Your task to perform on an android device: Do I have any events tomorrow? Image 0: 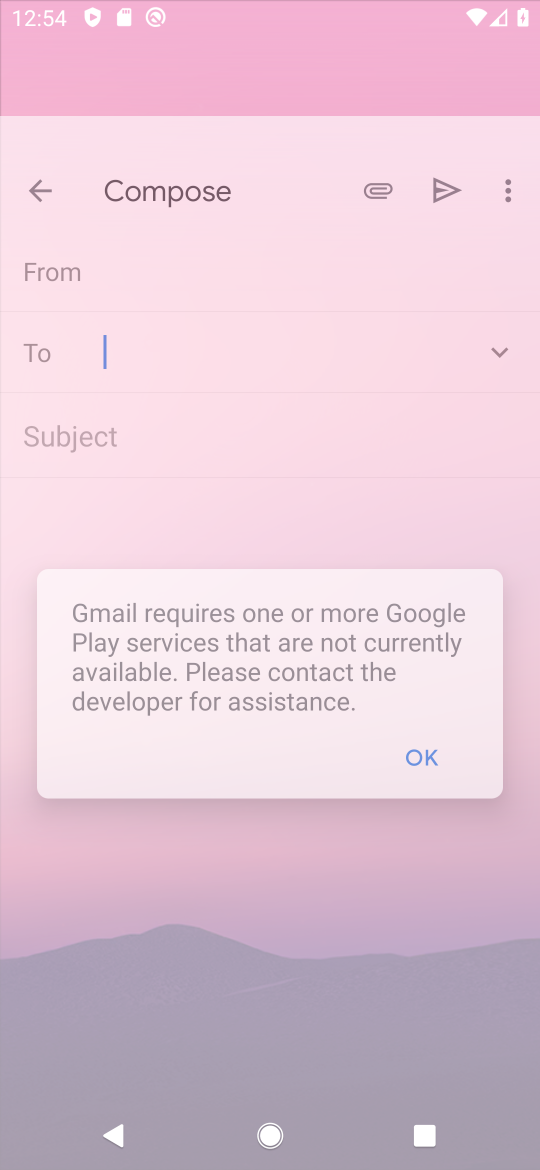
Step 0: drag from (295, 195) to (296, 419)
Your task to perform on an android device: Do I have any events tomorrow? Image 1: 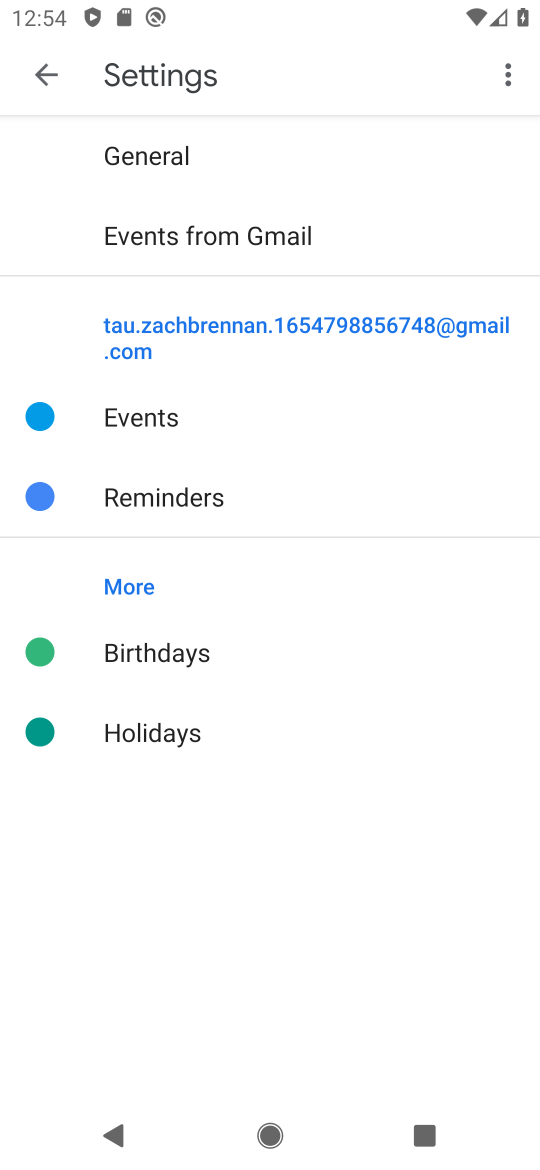
Step 1: press home button
Your task to perform on an android device: Do I have any events tomorrow? Image 2: 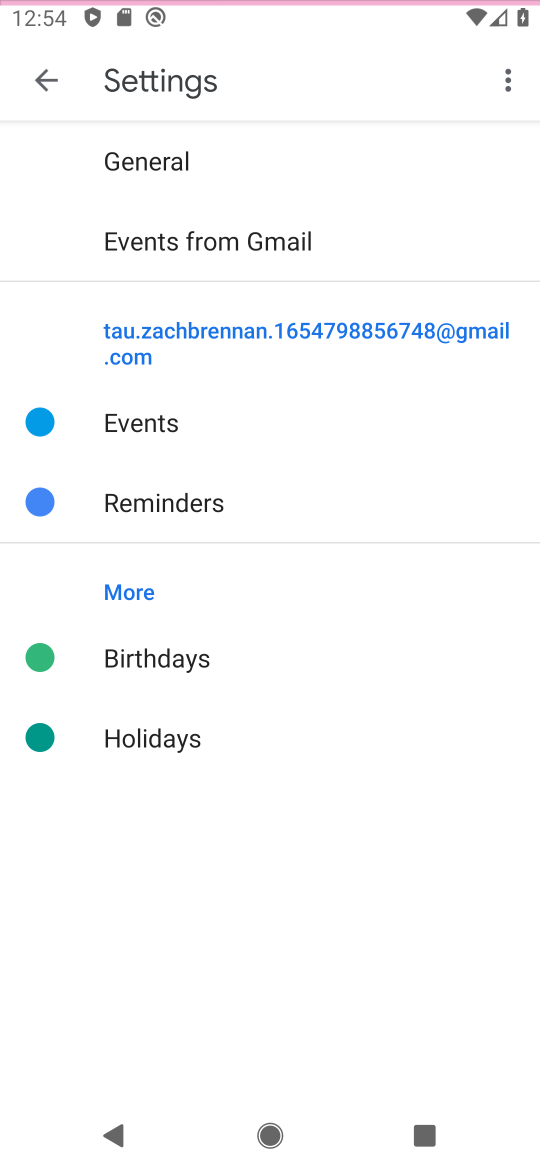
Step 2: drag from (318, 868) to (445, 25)
Your task to perform on an android device: Do I have any events tomorrow? Image 3: 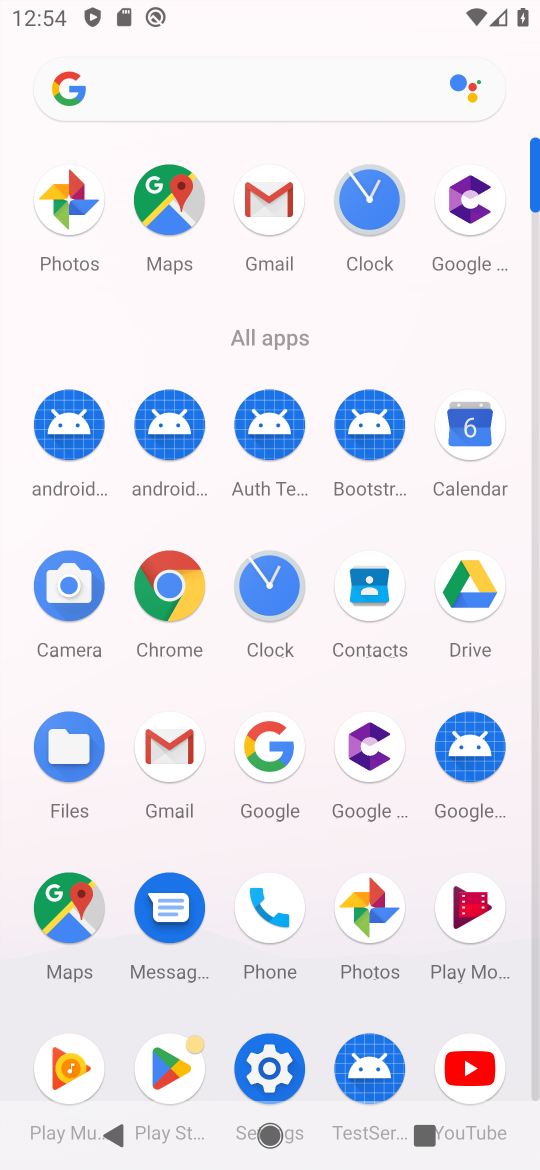
Step 3: click (476, 421)
Your task to perform on an android device: Do I have any events tomorrow? Image 4: 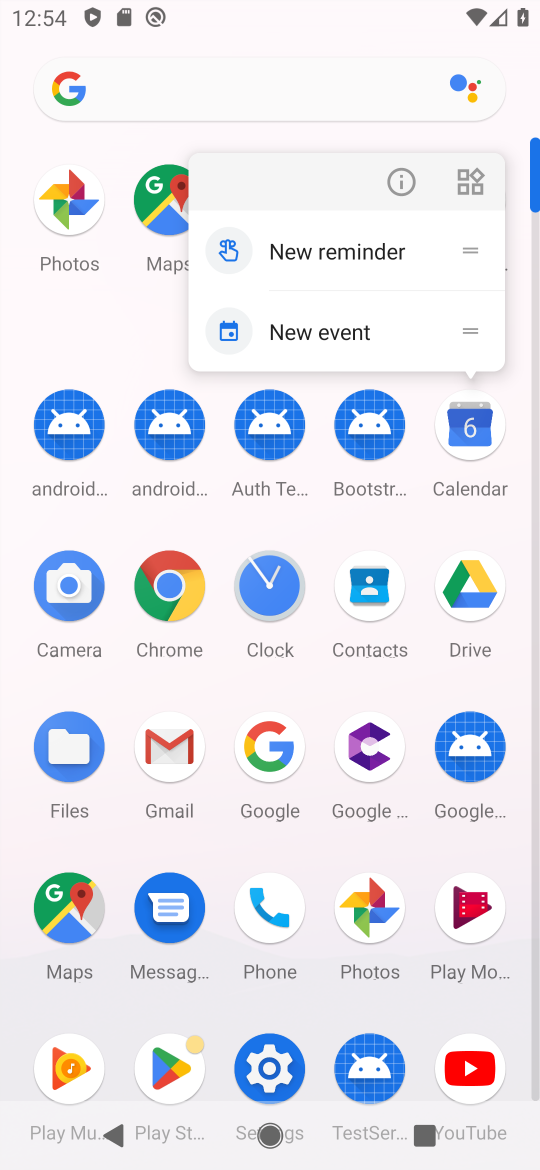
Step 4: click (409, 174)
Your task to perform on an android device: Do I have any events tomorrow? Image 5: 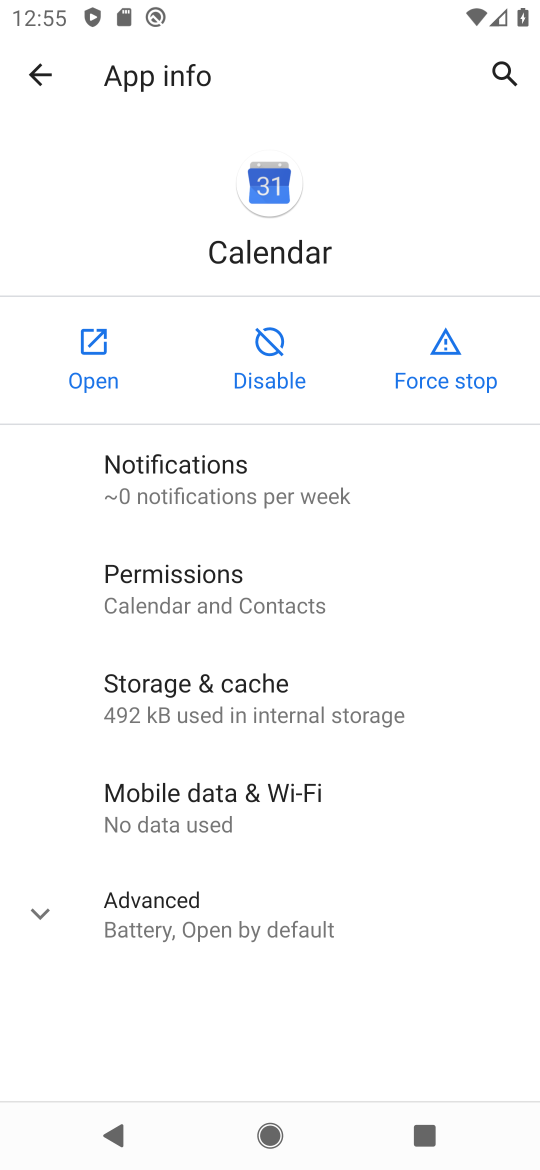
Step 5: click (100, 349)
Your task to perform on an android device: Do I have any events tomorrow? Image 6: 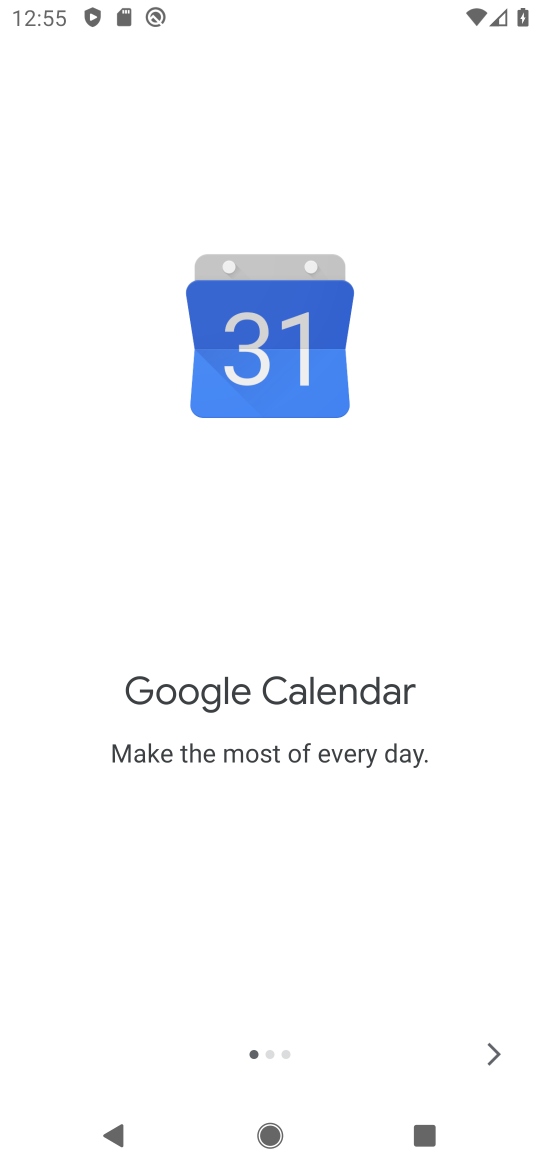
Step 6: click (498, 1037)
Your task to perform on an android device: Do I have any events tomorrow? Image 7: 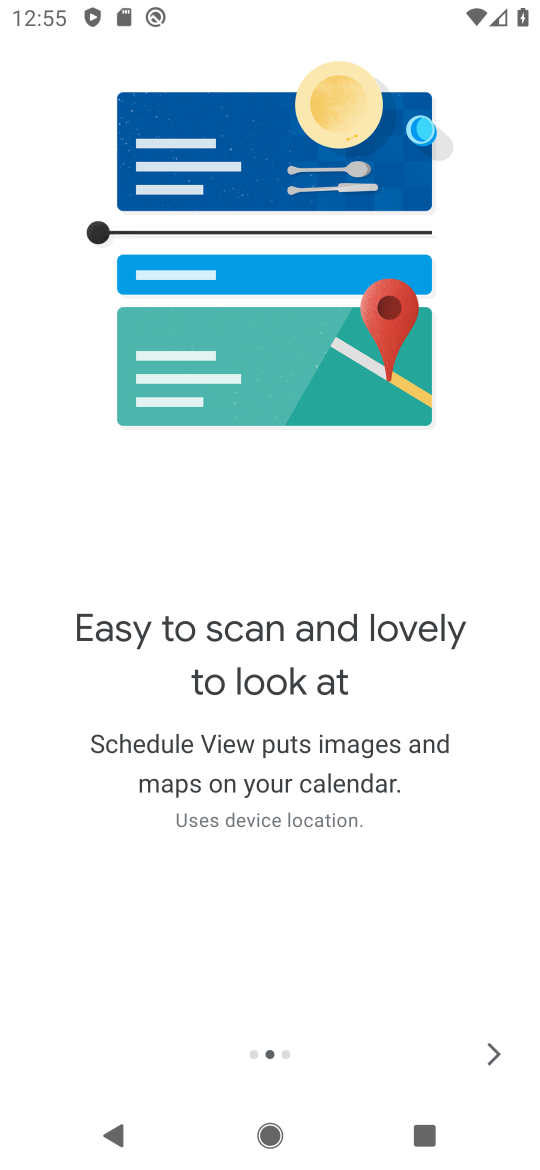
Step 7: click (502, 1043)
Your task to perform on an android device: Do I have any events tomorrow? Image 8: 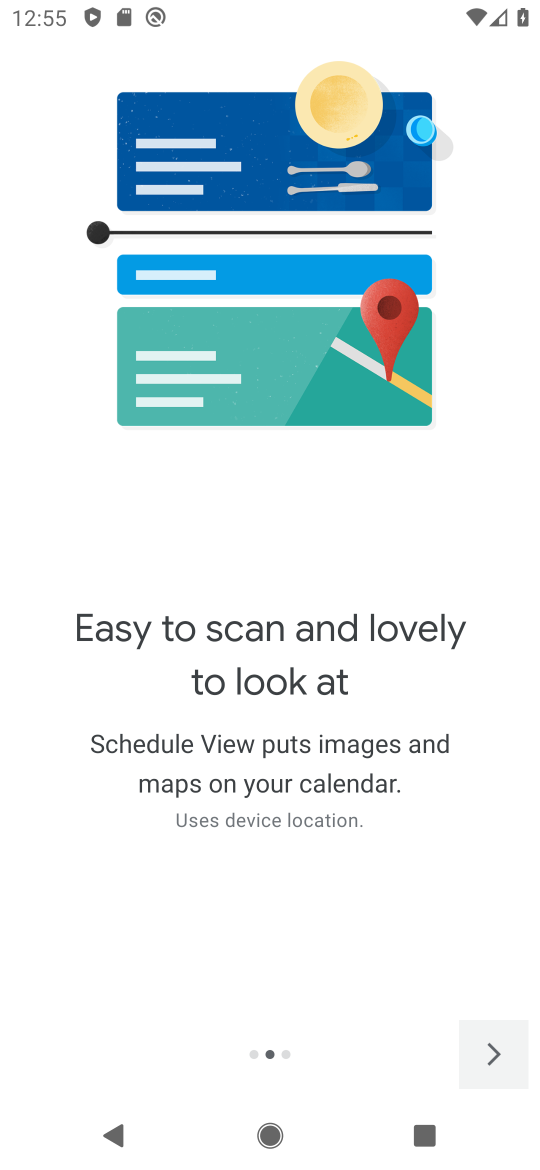
Step 8: click (496, 1043)
Your task to perform on an android device: Do I have any events tomorrow? Image 9: 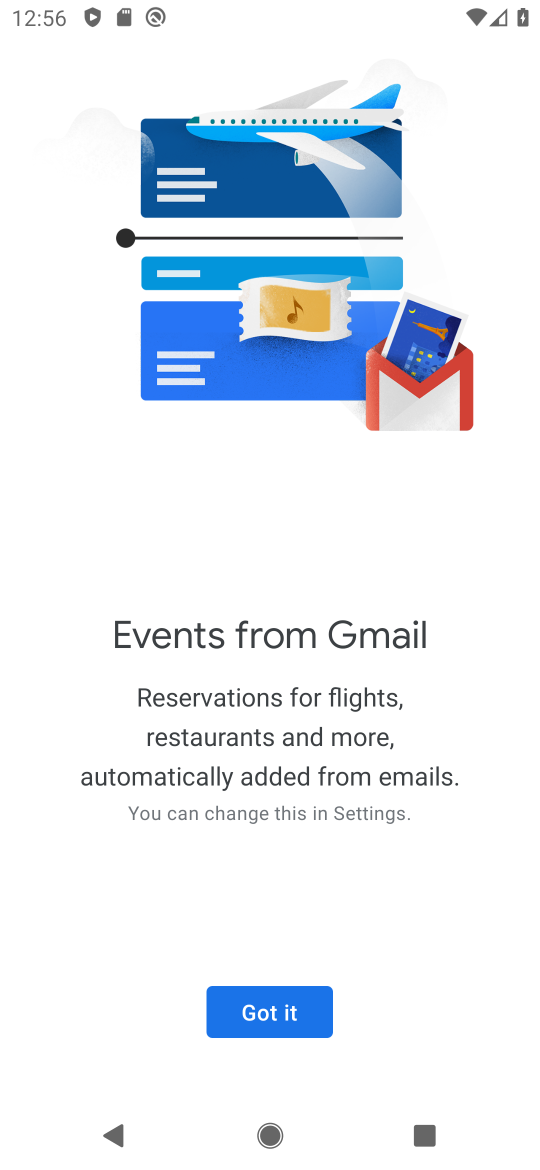
Step 9: click (270, 998)
Your task to perform on an android device: Do I have any events tomorrow? Image 10: 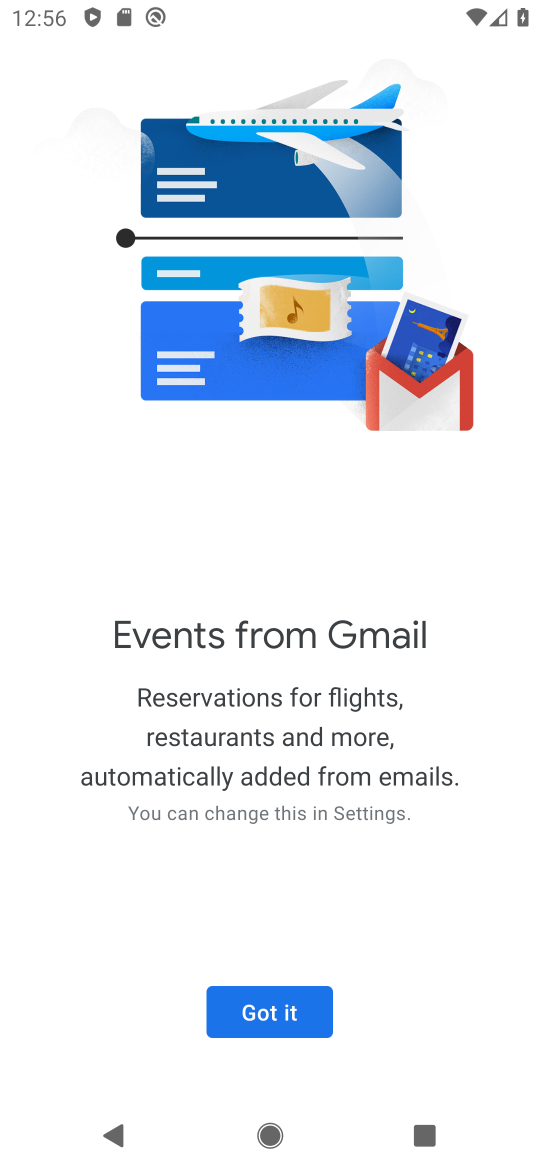
Step 10: click (290, 1027)
Your task to perform on an android device: Do I have any events tomorrow? Image 11: 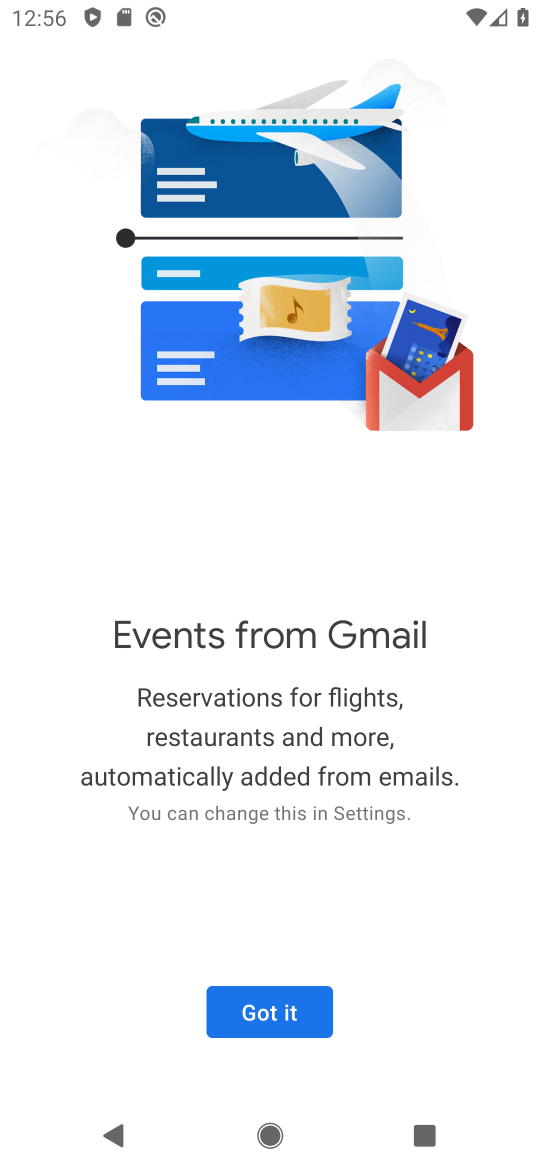
Step 11: click (279, 1014)
Your task to perform on an android device: Do I have any events tomorrow? Image 12: 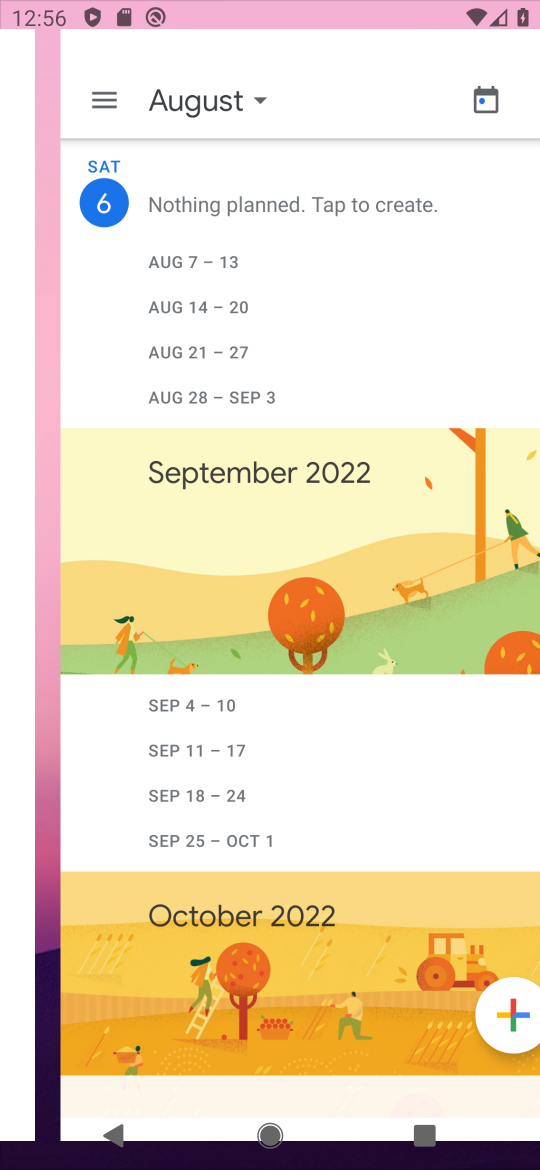
Step 12: click (281, 1009)
Your task to perform on an android device: Do I have any events tomorrow? Image 13: 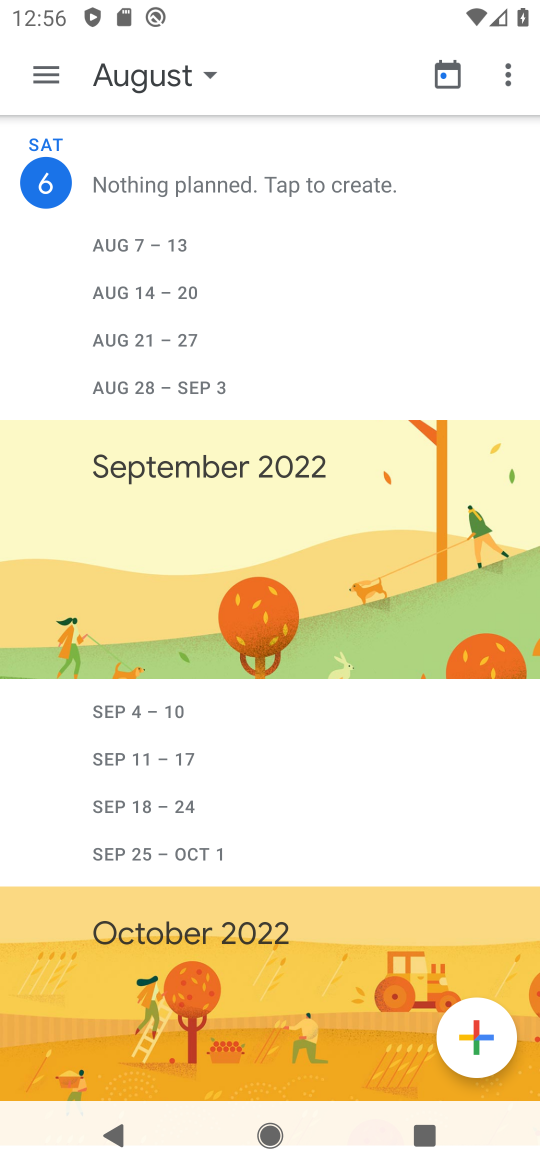
Step 13: drag from (286, 990) to (356, 406)
Your task to perform on an android device: Do I have any events tomorrow? Image 14: 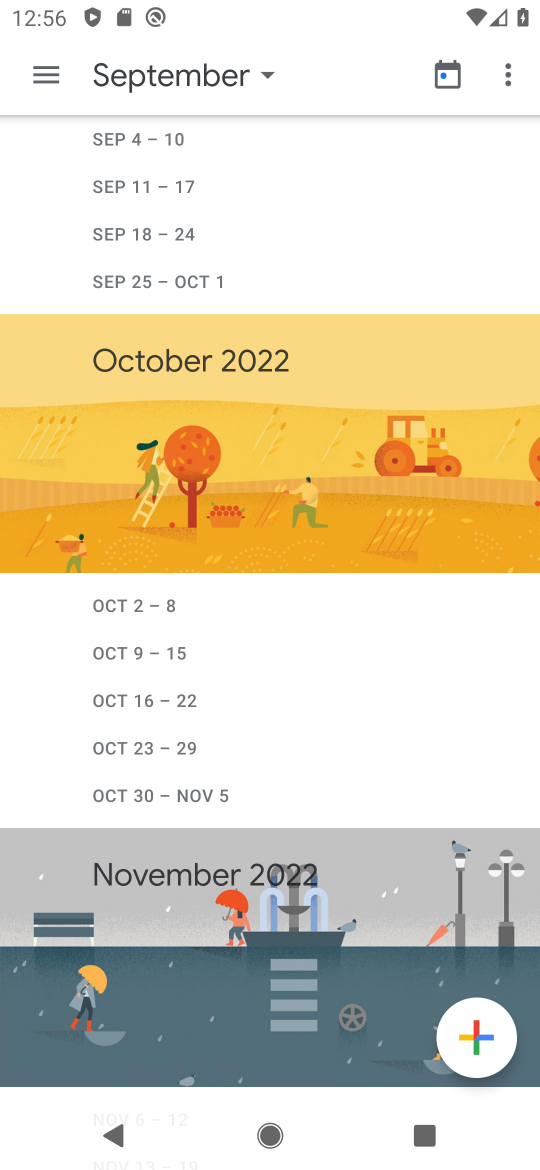
Step 14: click (290, 17)
Your task to perform on an android device: Do I have any events tomorrow? Image 15: 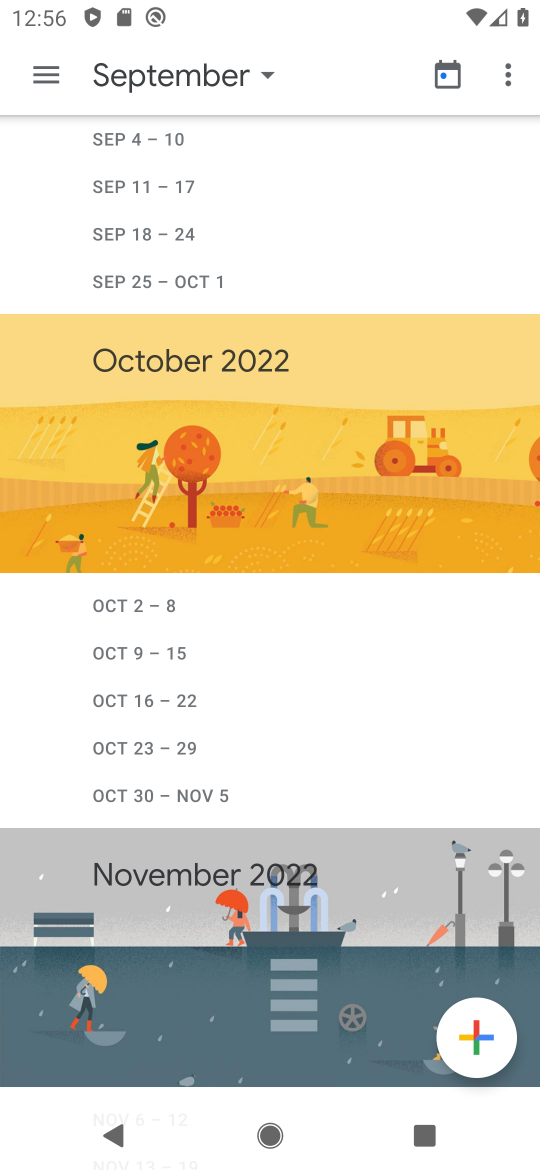
Step 15: click (458, 81)
Your task to perform on an android device: Do I have any events tomorrow? Image 16: 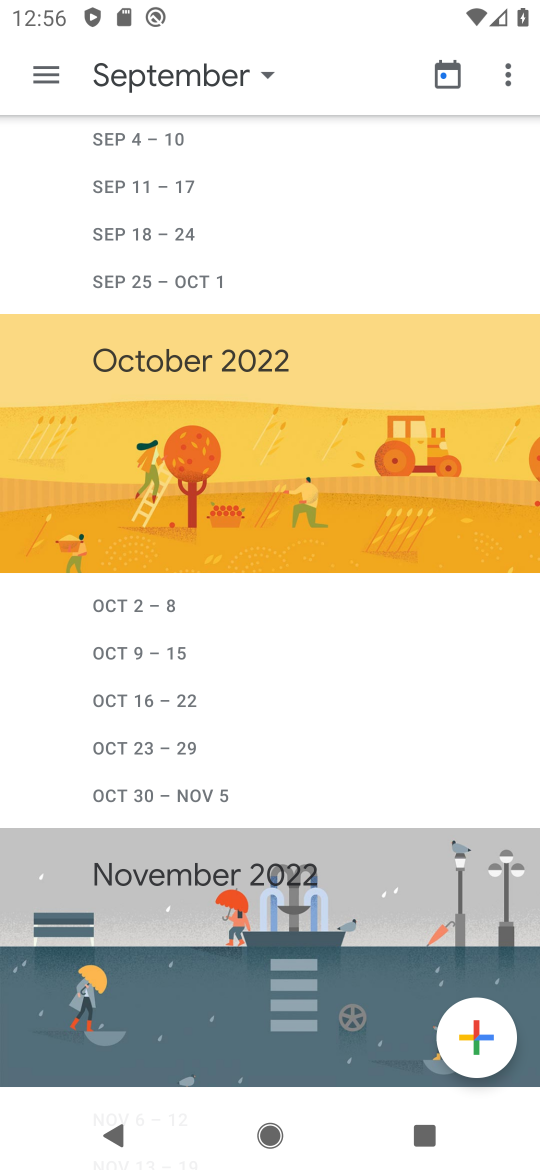
Step 16: click (182, 65)
Your task to perform on an android device: Do I have any events tomorrow? Image 17: 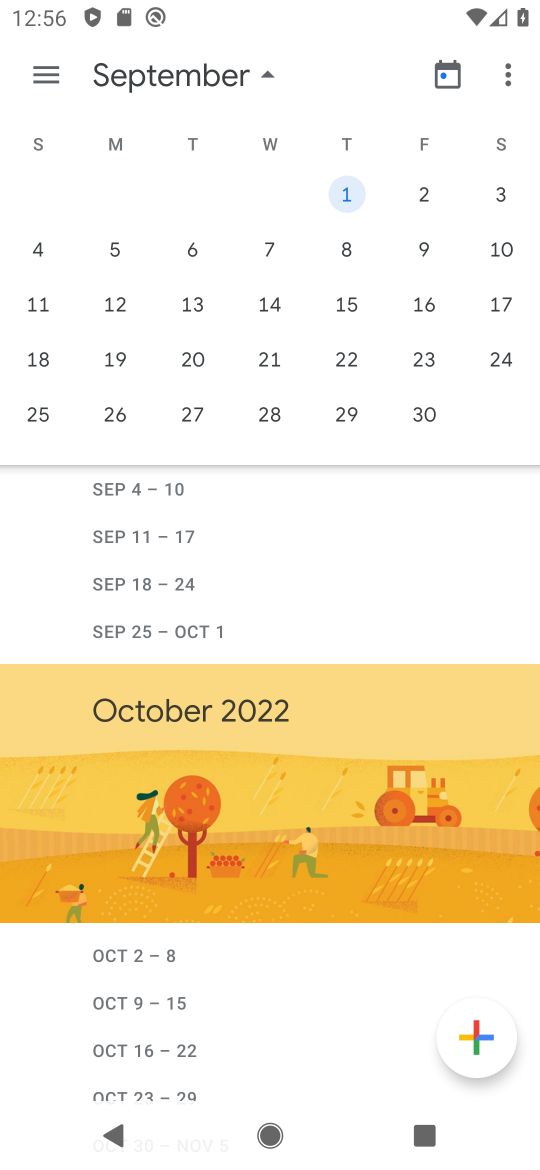
Step 17: click (451, 75)
Your task to perform on an android device: Do I have any events tomorrow? Image 18: 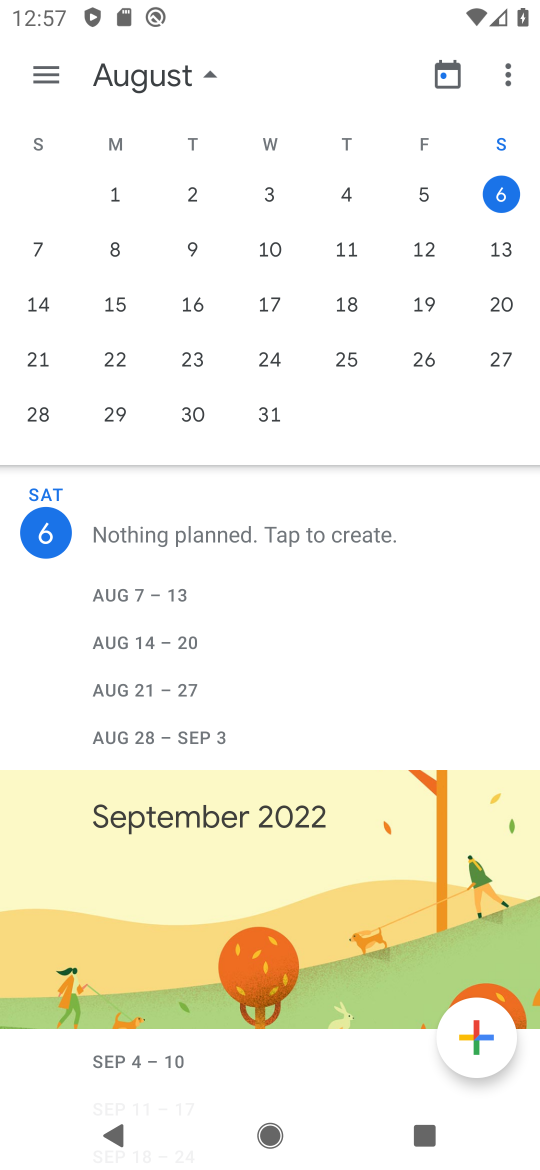
Step 18: click (43, 247)
Your task to perform on an android device: Do I have any events tomorrow? Image 19: 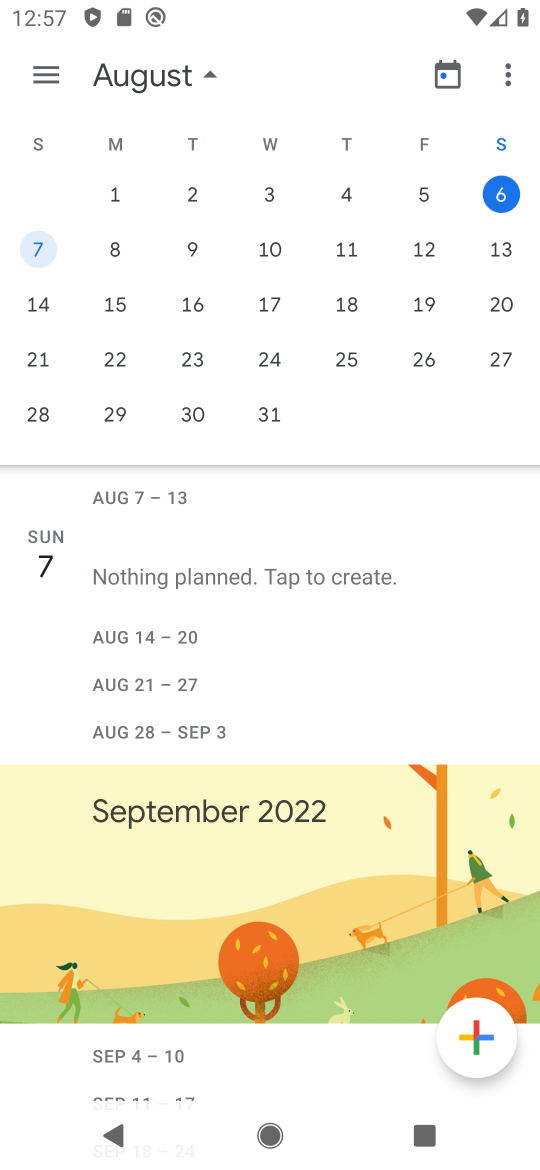
Step 19: task complete